Your task to perform on an android device: turn on improve location accuracy Image 0: 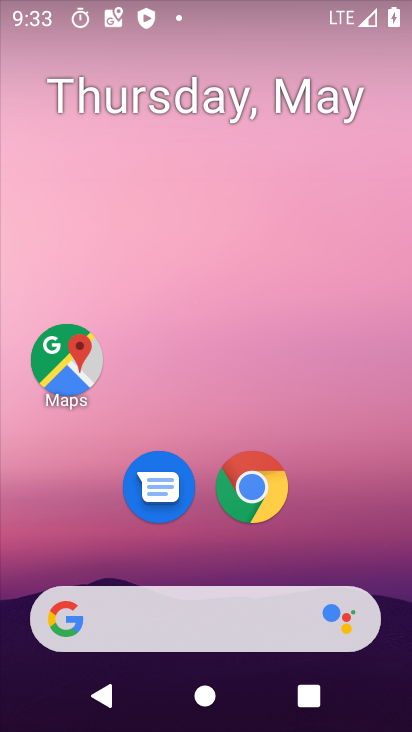
Step 0: drag from (309, 452) to (339, 166)
Your task to perform on an android device: turn on improve location accuracy Image 1: 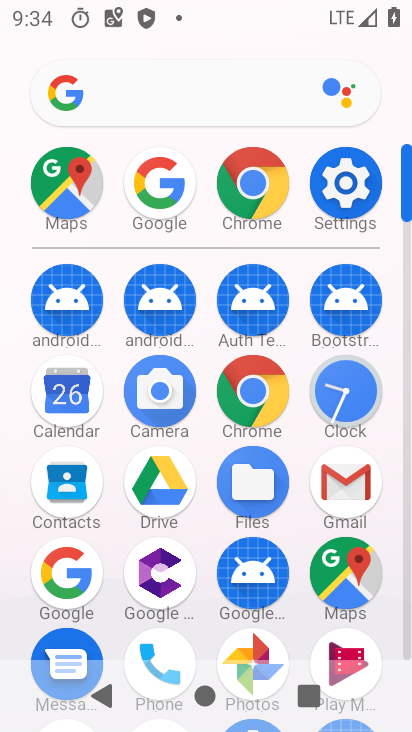
Step 1: click (331, 202)
Your task to perform on an android device: turn on improve location accuracy Image 2: 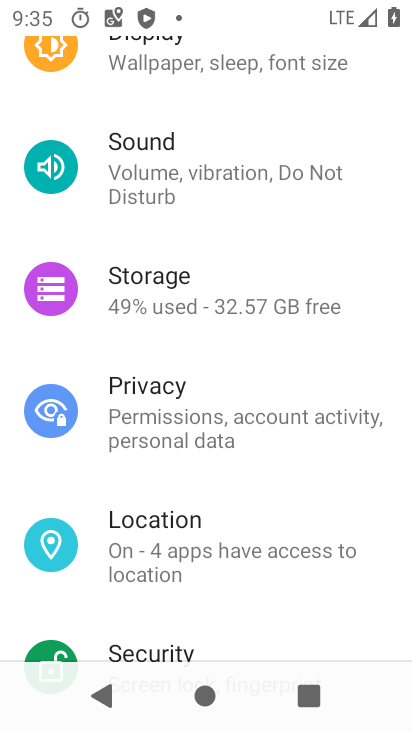
Step 2: click (176, 549)
Your task to perform on an android device: turn on improve location accuracy Image 3: 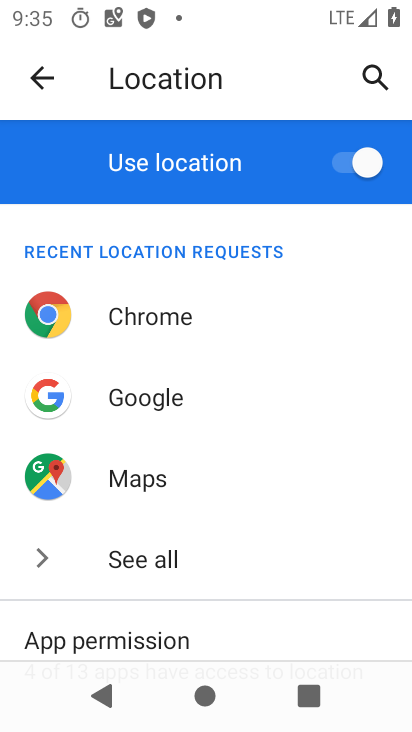
Step 3: drag from (168, 486) to (262, 16)
Your task to perform on an android device: turn on improve location accuracy Image 4: 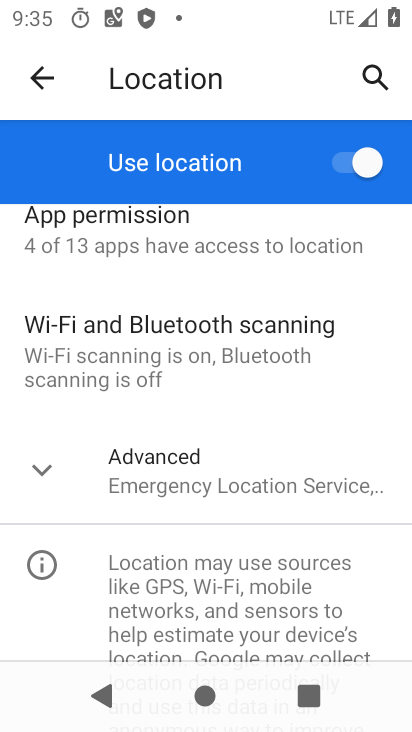
Step 4: click (173, 488)
Your task to perform on an android device: turn on improve location accuracy Image 5: 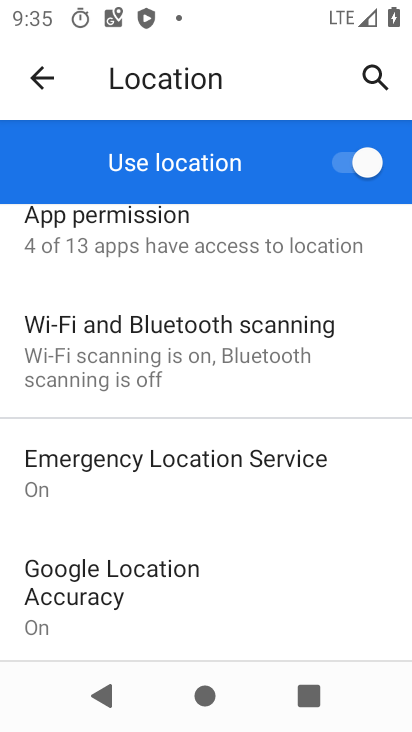
Step 5: click (164, 585)
Your task to perform on an android device: turn on improve location accuracy Image 6: 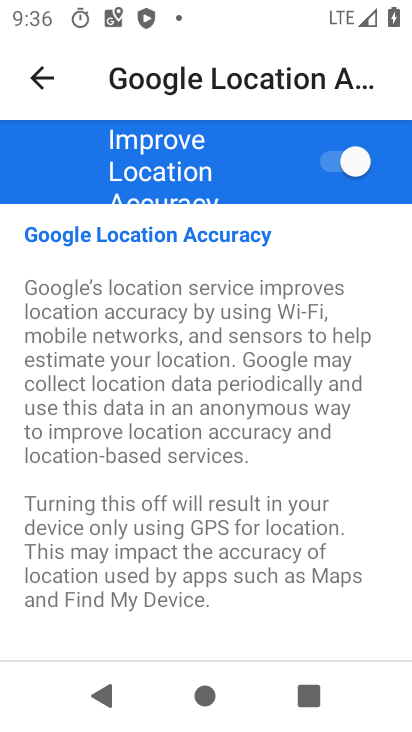
Step 6: task complete